Your task to perform on an android device: What's the weather? Image 0: 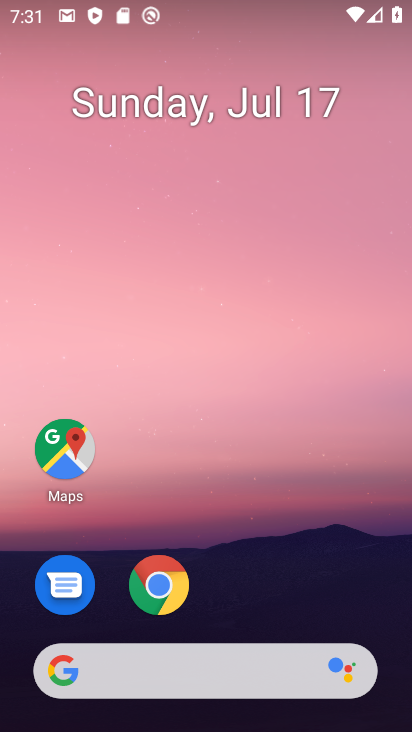
Step 0: click (202, 661)
Your task to perform on an android device: What's the weather? Image 1: 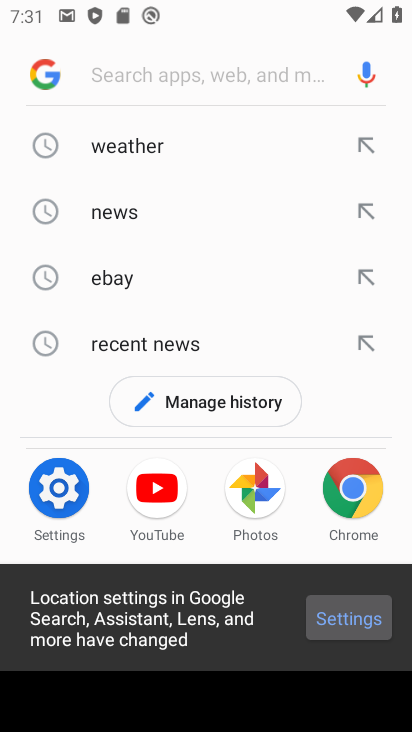
Step 1: click (126, 149)
Your task to perform on an android device: What's the weather? Image 2: 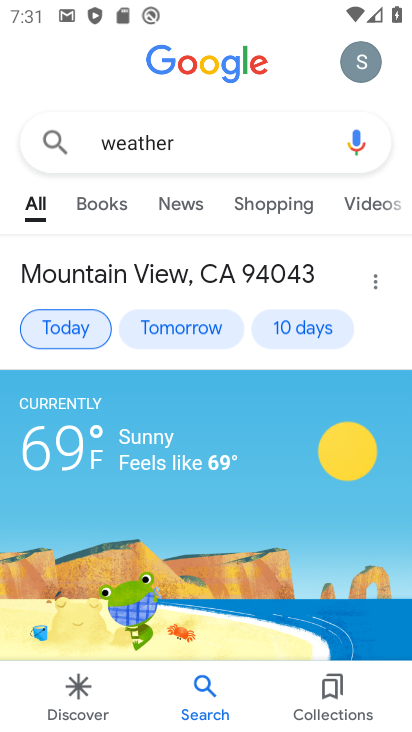
Step 2: task complete